Your task to perform on an android device: empty trash in the gmail app Image 0: 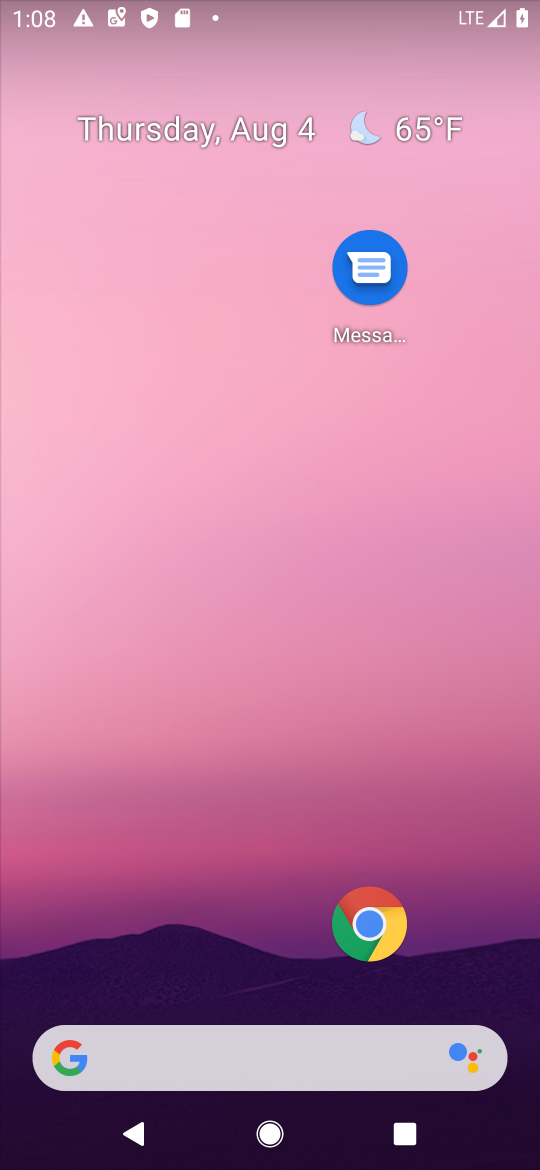
Step 0: drag from (227, 643) to (326, 223)
Your task to perform on an android device: empty trash in the gmail app Image 1: 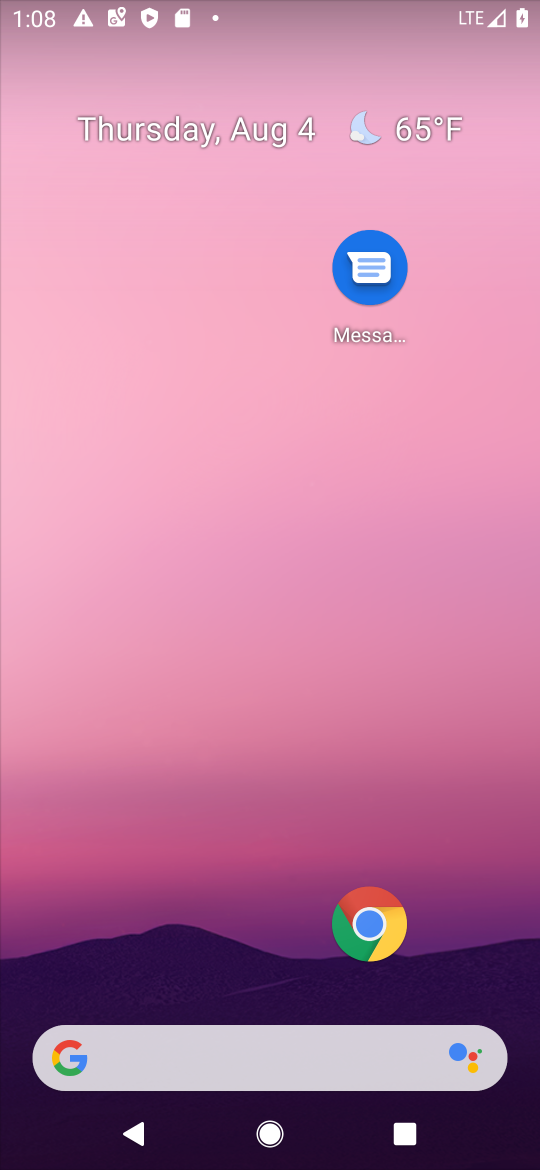
Step 1: drag from (206, 732) to (354, 82)
Your task to perform on an android device: empty trash in the gmail app Image 2: 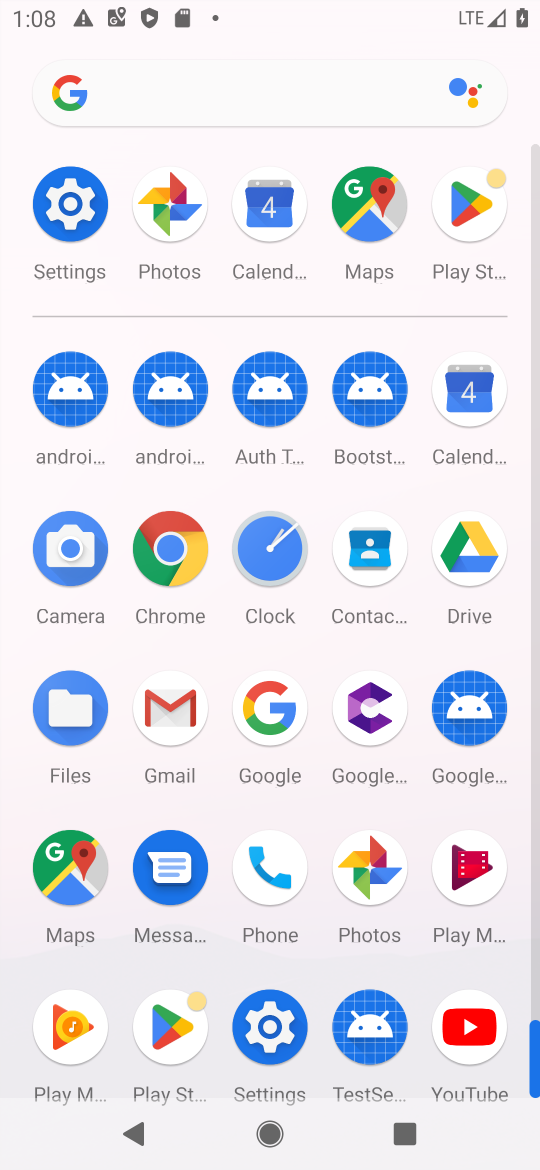
Step 2: click (163, 712)
Your task to perform on an android device: empty trash in the gmail app Image 3: 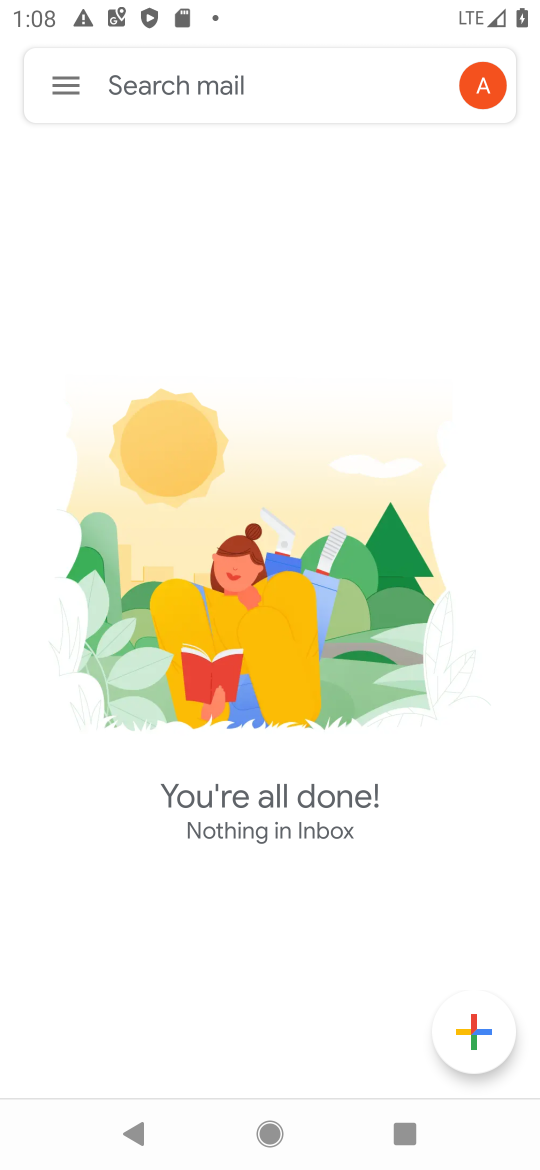
Step 3: click (67, 84)
Your task to perform on an android device: empty trash in the gmail app Image 4: 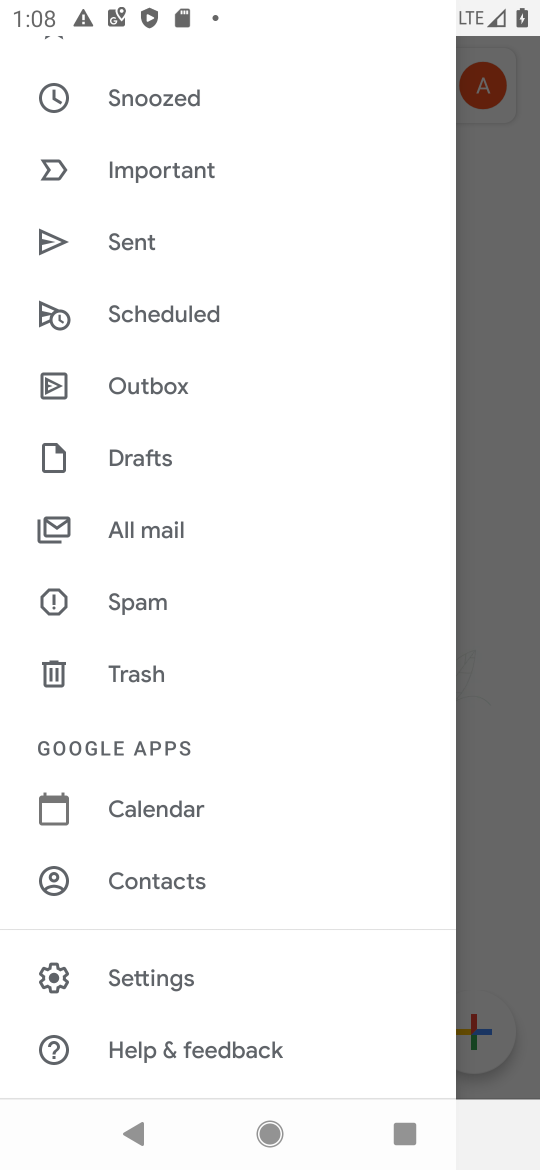
Step 4: click (147, 682)
Your task to perform on an android device: empty trash in the gmail app Image 5: 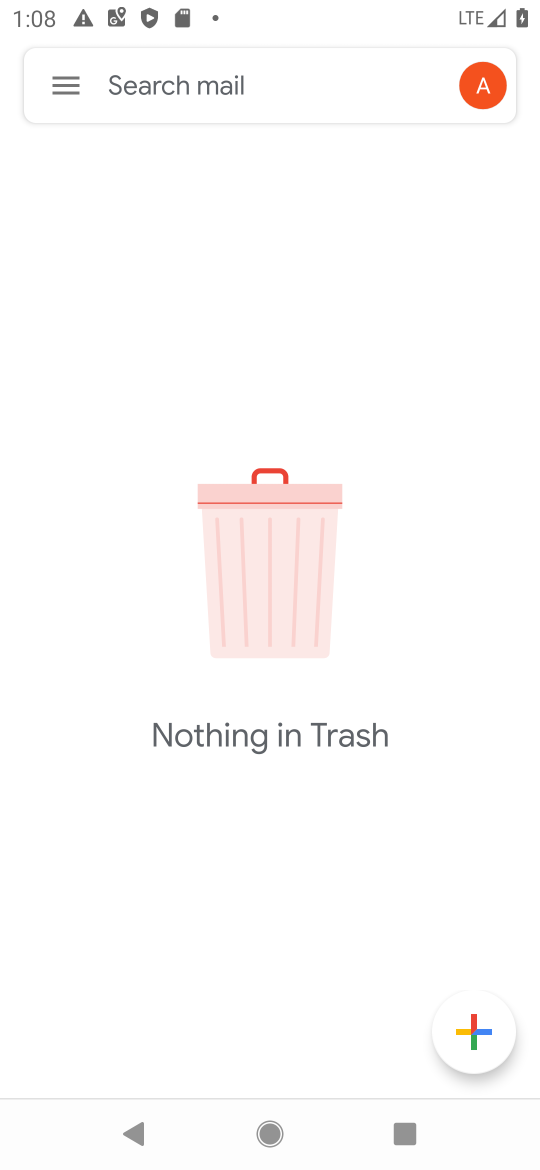
Step 5: click (45, 92)
Your task to perform on an android device: empty trash in the gmail app Image 6: 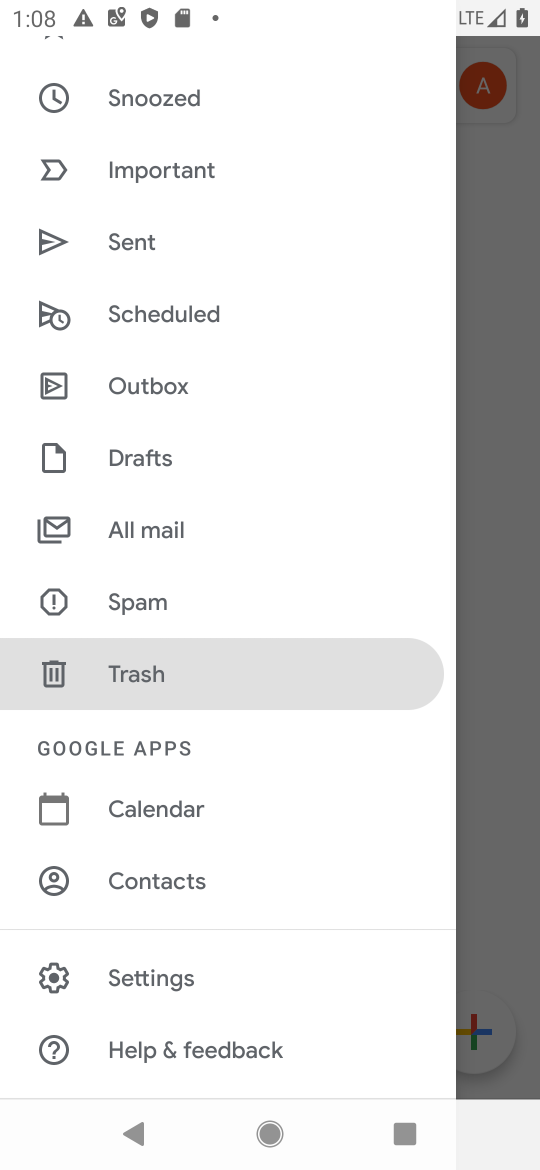
Step 6: click (529, 526)
Your task to perform on an android device: empty trash in the gmail app Image 7: 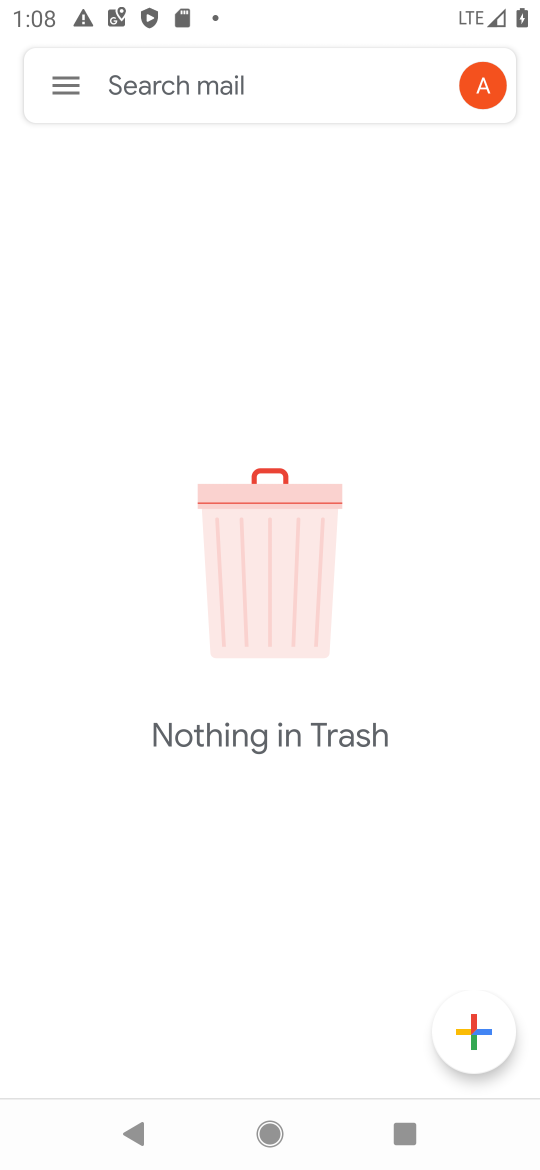
Step 7: task complete